Your task to perform on an android device: open chrome and create a bookmark for the current page Image 0: 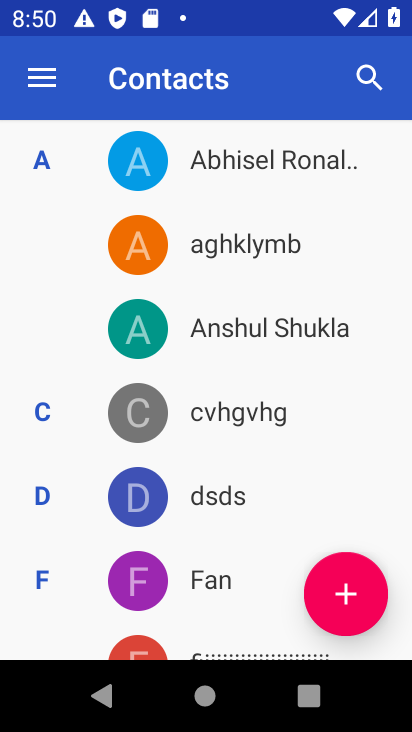
Step 0: press home button
Your task to perform on an android device: open chrome and create a bookmark for the current page Image 1: 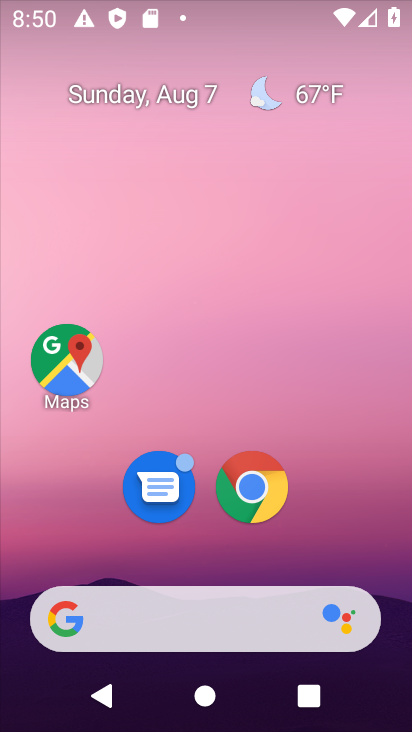
Step 1: click (254, 478)
Your task to perform on an android device: open chrome and create a bookmark for the current page Image 2: 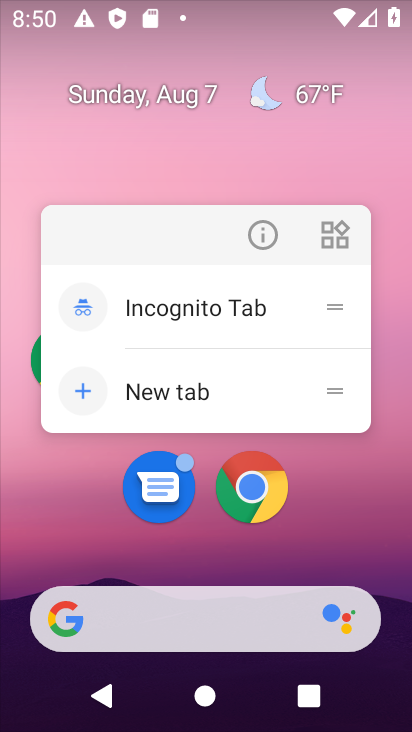
Step 2: click (236, 483)
Your task to perform on an android device: open chrome and create a bookmark for the current page Image 3: 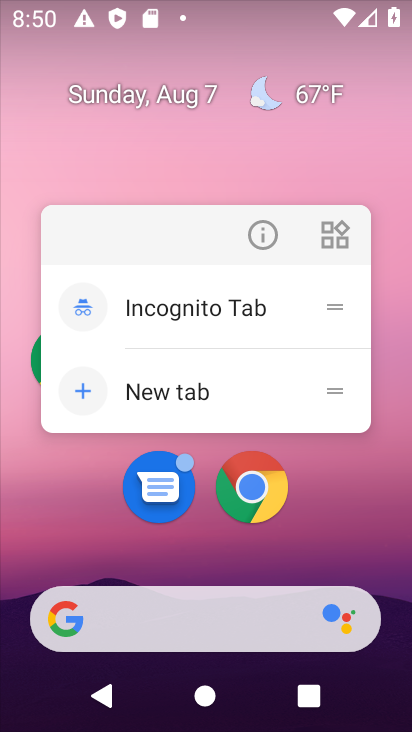
Step 3: click (244, 495)
Your task to perform on an android device: open chrome and create a bookmark for the current page Image 4: 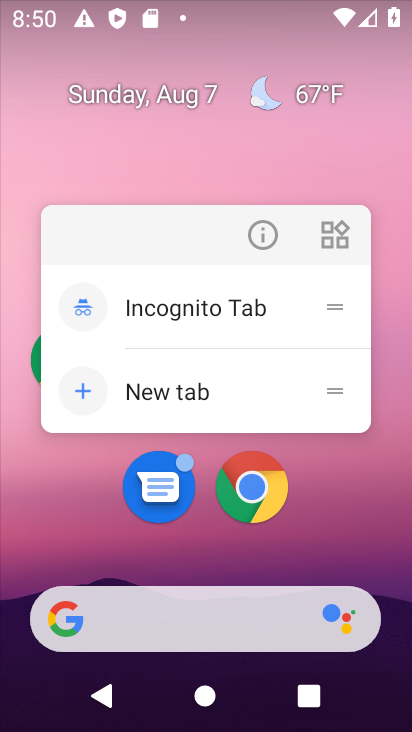
Step 4: click (244, 493)
Your task to perform on an android device: open chrome and create a bookmark for the current page Image 5: 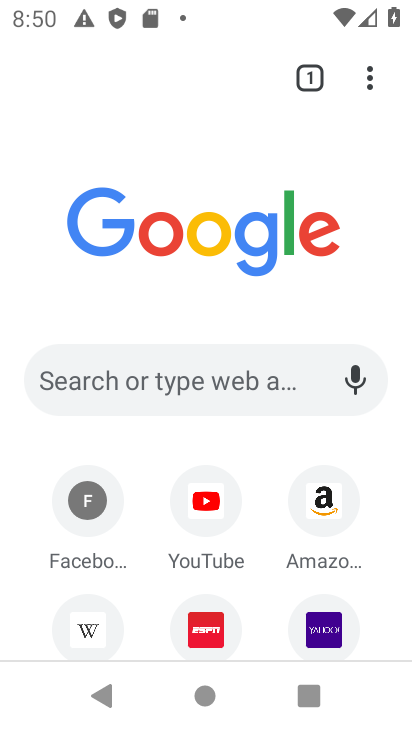
Step 5: click (362, 70)
Your task to perform on an android device: open chrome and create a bookmark for the current page Image 6: 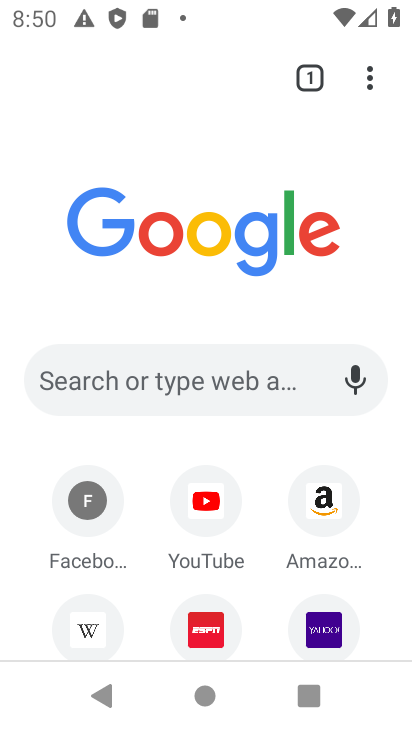
Step 6: click (363, 76)
Your task to perform on an android device: open chrome and create a bookmark for the current page Image 7: 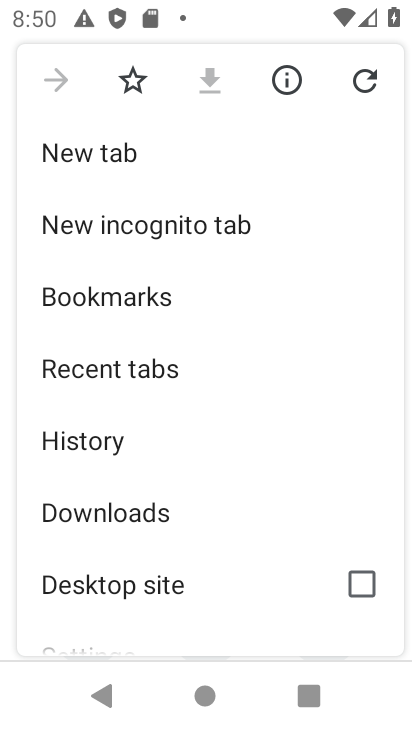
Step 7: click (128, 77)
Your task to perform on an android device: open chrome and create a bookmark for the current page Image 8: 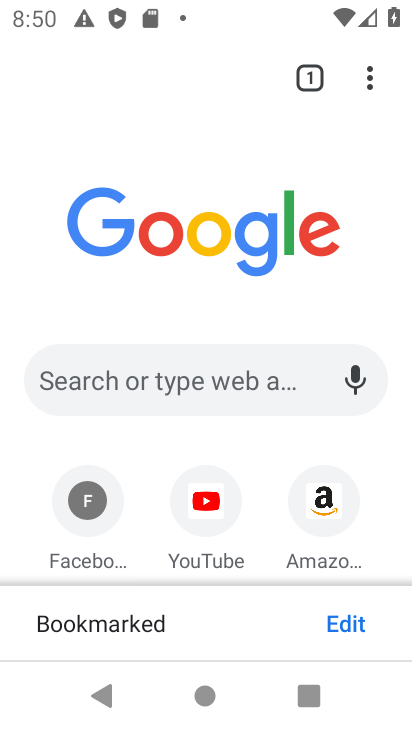
Step 8: task complete